Your task to perform on an android device: Open network settings Image 0: 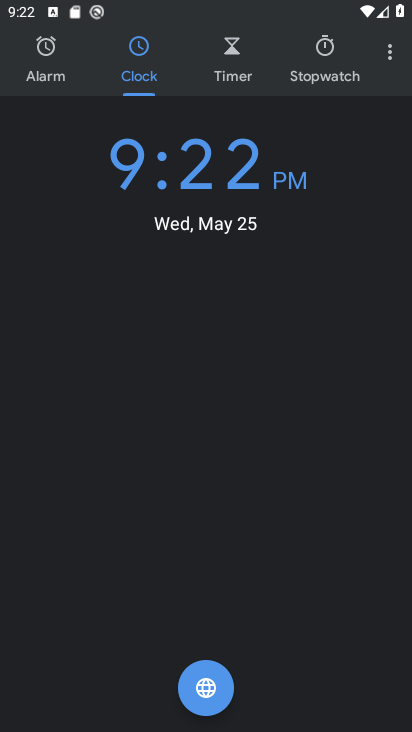
Step 0: press home button
Your task to perform on an android device: Open network settings Image 1: 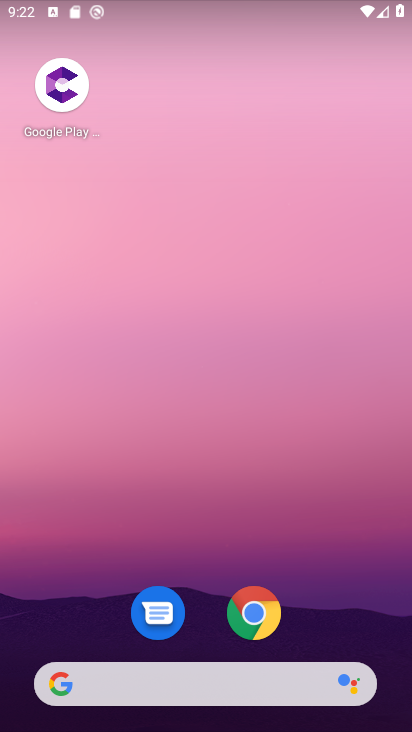
Step 1: drag from (239, 678) to (302, 28)
Your task to perform on an android device: Open network settings Image 2: 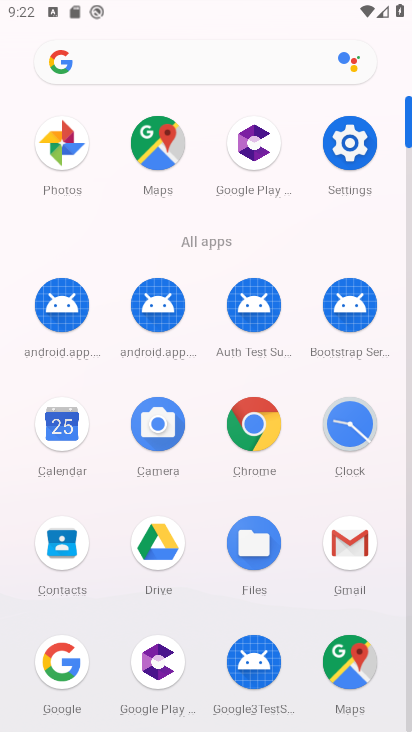
Step 2: click (342, 141)
Your task to perform on an android device: Open network settings Image 3: 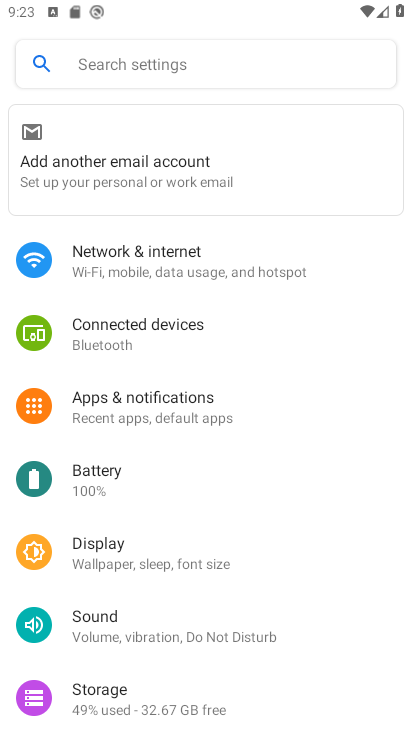
Step 3: click (137, 271)
Your task to perform on an android device: Open network settings Image 4: 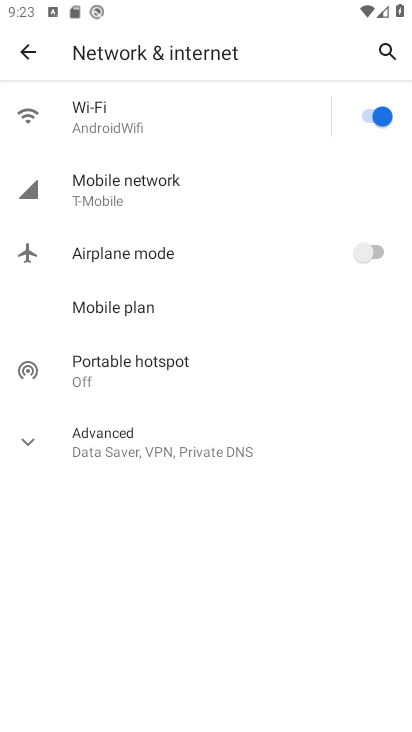
Step 4: task complete